Your task to perform on an android device: Open wifi settings Image 0: 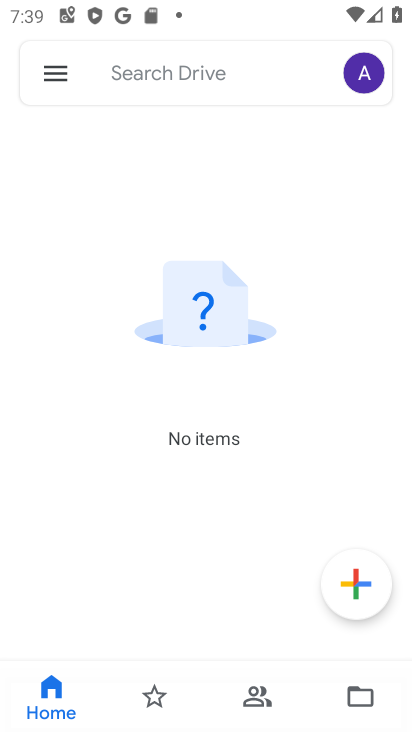
Step 0: press home button
Your task to perform on an android device: Open wifi settings Image 1: 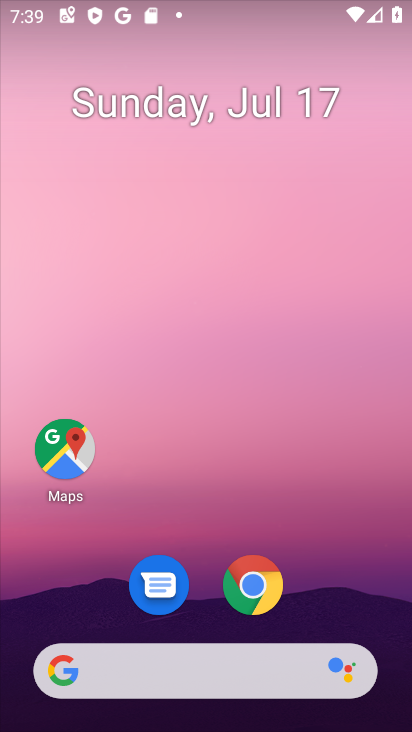
Step 1: drag from (312, 582) to (281, 103)
Your task to perform on an android device: Open wifi settings Image 2: 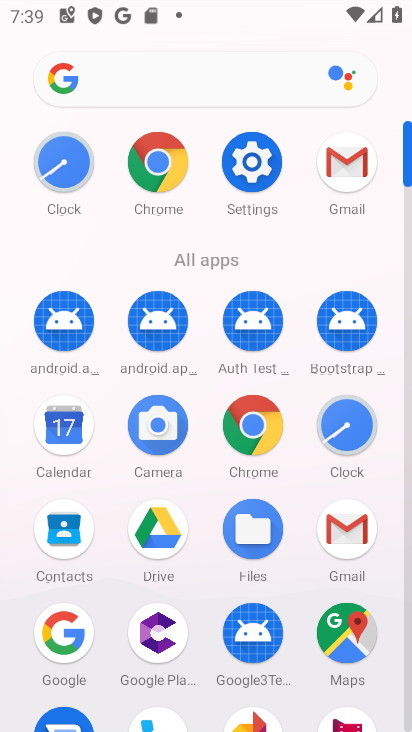
Step 2: click (237, 155)
Your task to perform on an android device: Open wifi settings Image 3: 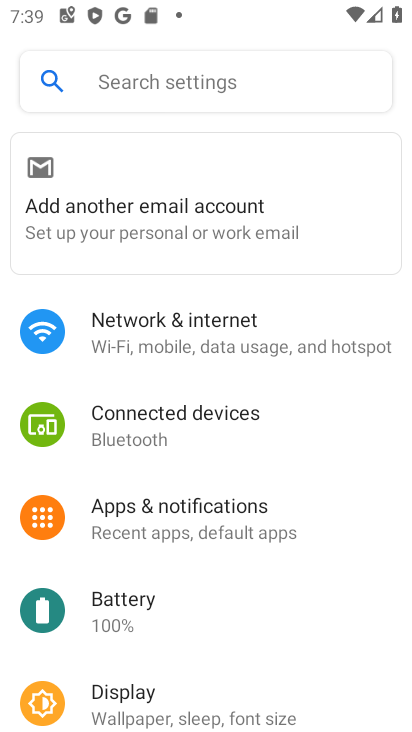
Step 3: click (169, 348)
Your task to perform on an android device: Open wifi settings Image 4: 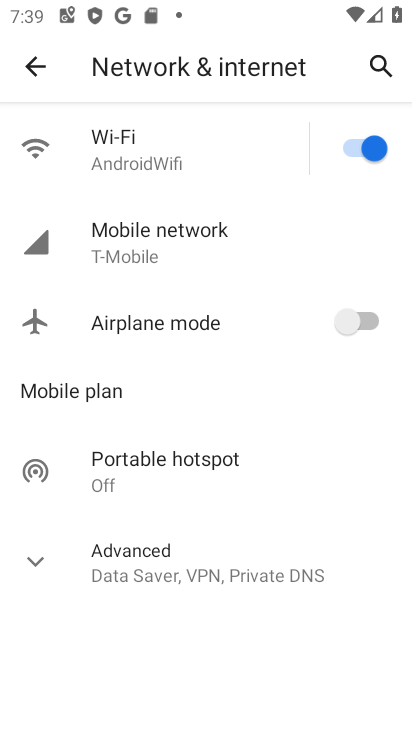
Step 4: click (142, 146)
Your task to perform on an android device: Open wifi settings Image 5: 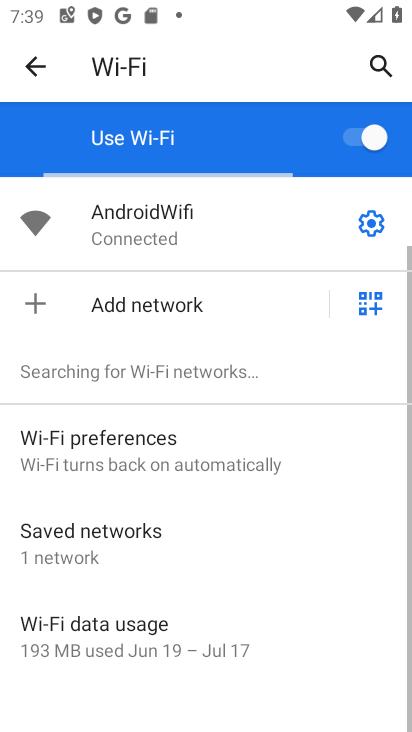
Step 5: task complete